Your task to perform on an android device: turn on data saver in the chrome app Image 0: 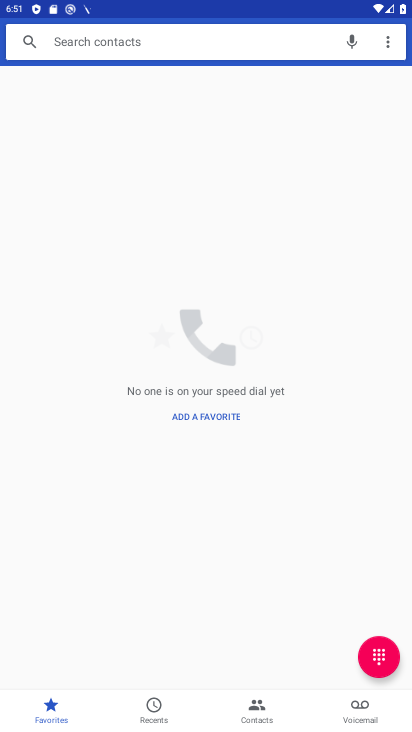
Step 0: press home button
Your task to perform on an android device: turn on data saver in the chrome app Image 1: 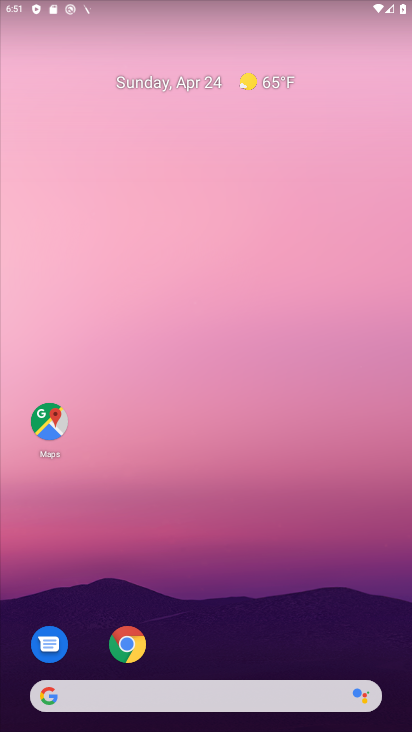
Step 1: click (124, 639)
Your task to perform on an android device: turn on data saver in the chrome app Image 2: 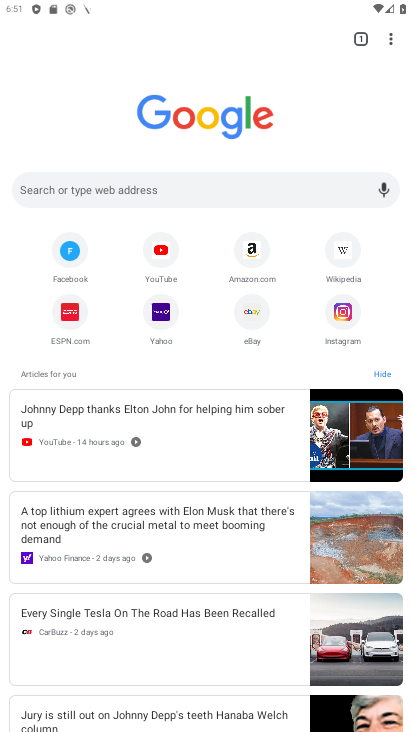
Step 2: click (387, 34)
Your task to perform on an android device: turn on data saver in the chrome app Image 3: 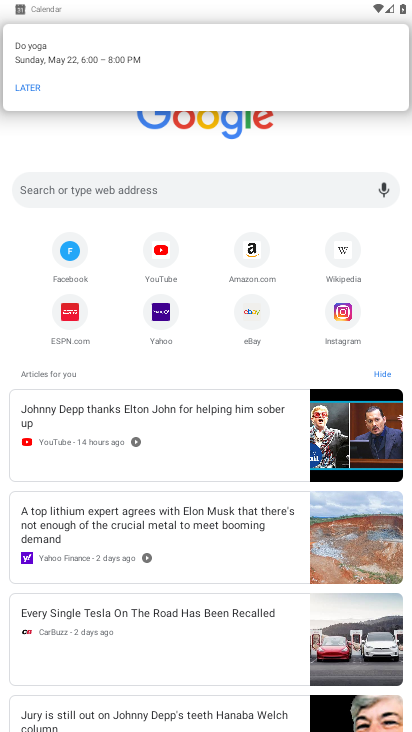
Step 3: click (283, 140)
Your task to perform on an android device: turn on data saver in the chrome app Image 4: 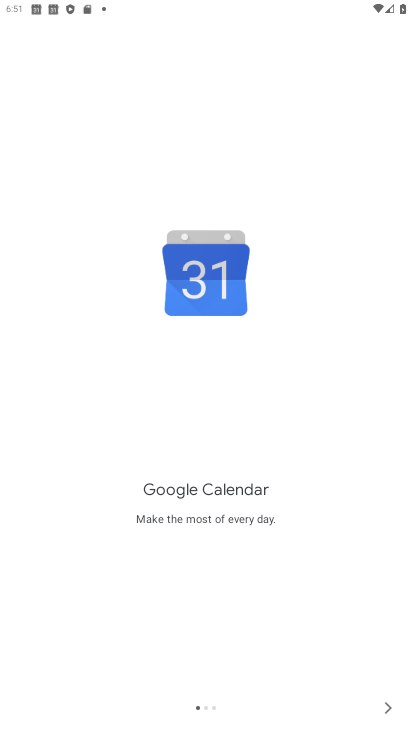
Step 4: press home button
Your task to perform on an android device: turn on data saver in the chrome app Image 5: 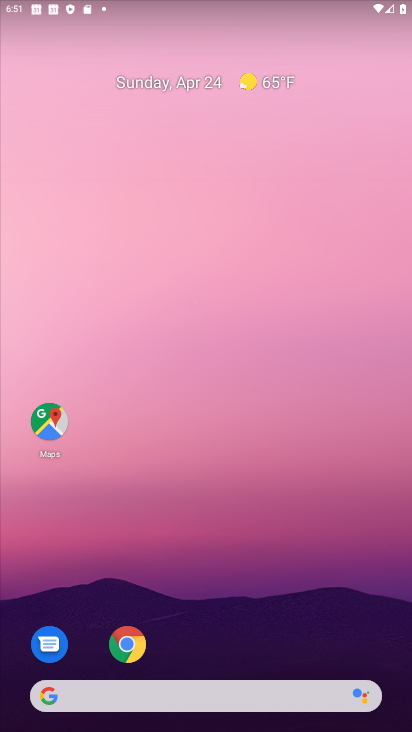
Step 5: click (125, 642)
Your task to perform on an android device: turn on data saver in the chrome app Image 6: 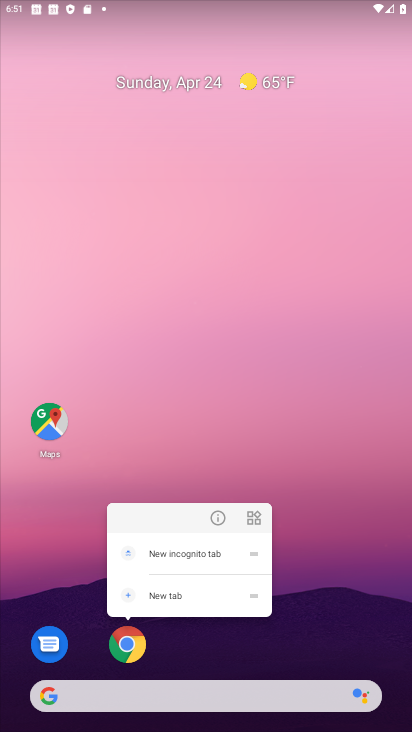
Step 6: click (127, 637)
Your task to perform on an android device: turn on data saver in the chrome app Image 7: 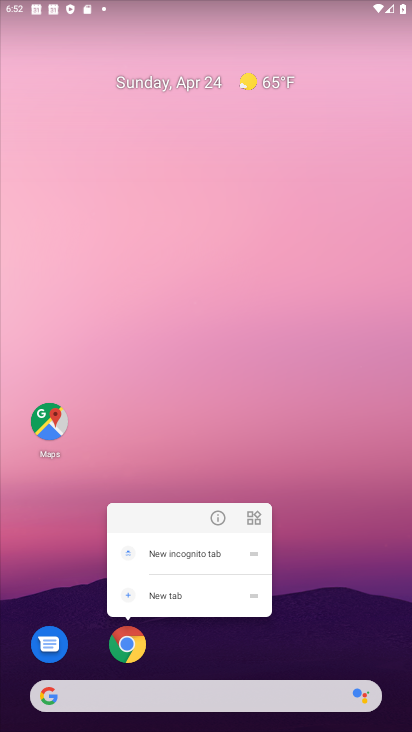
Step 7: click (126, 645)
Your task to perform on an android device: turn on data saver in the chrome app Image 8: 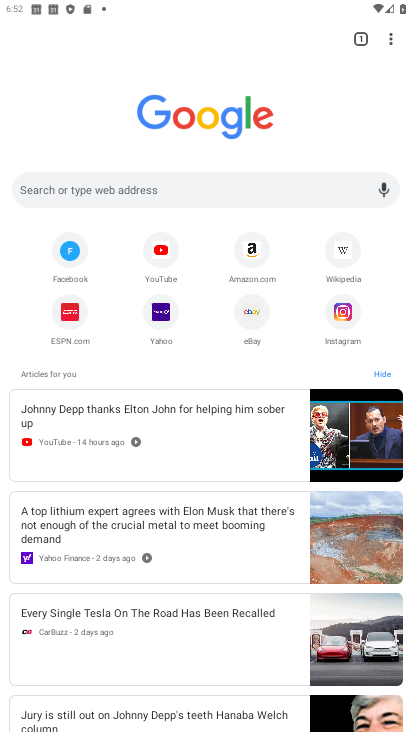
Step 8: click (388, 38)
Your task to perform on an android device: turn on data saver in the chrome app Image 9: 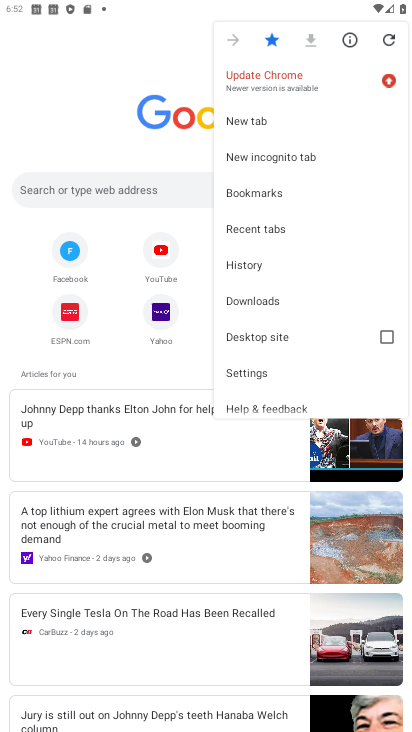
Step 9: click (280, 369)
Your task to perform on an android device: turn on data saver in the chrome app Image 10: 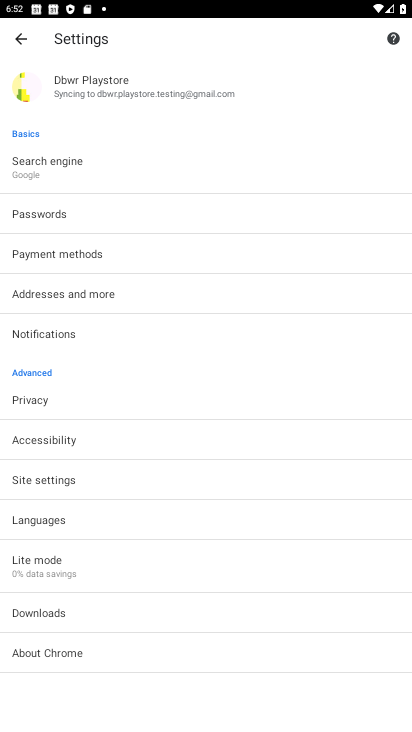
Step 10: click (76, 565)
Your task to perform on an android device: turn on data saver in the chrome app Image 11: 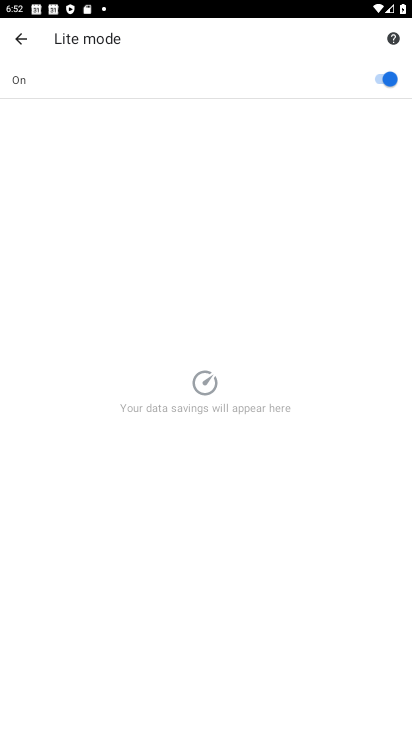
Step 11: task complete